Your task to perform on an android device: What's on my calendar today? Image 0: 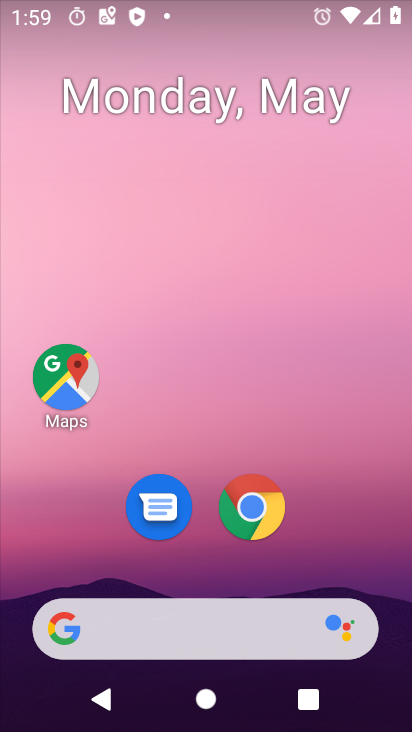
Step 0: drag from (240, 708) to (242, 55)
Your task to perform on an android device: What's on my calendar today? Image 1: 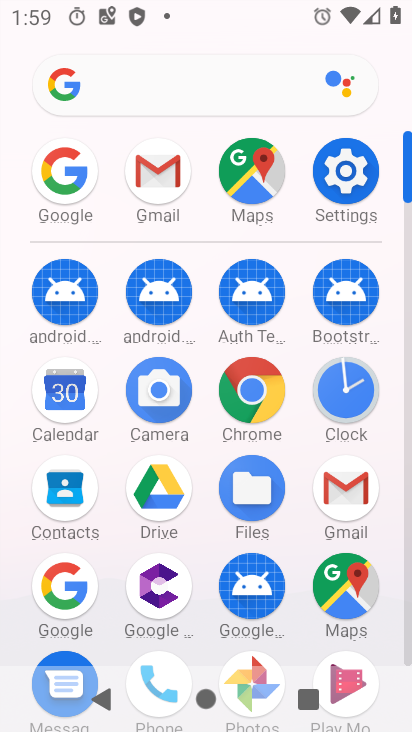
Step 1: click (65, 390)
Your task to perform on an android device: What's on my calendar today? Image 2: 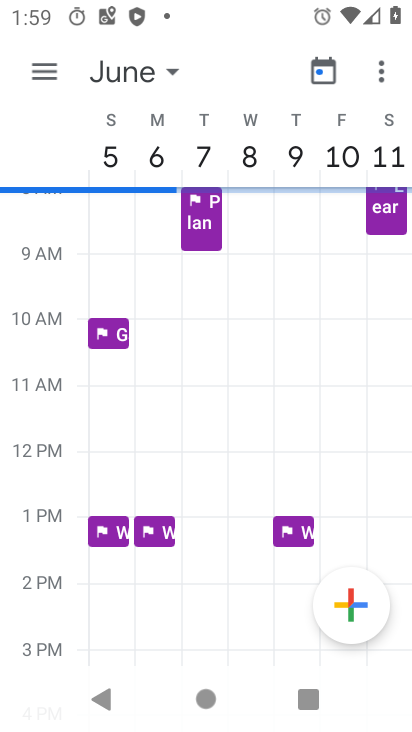
Step 2: click (144, 74)
Your task to perform on an android device: What's on my calendar today? Image 3: 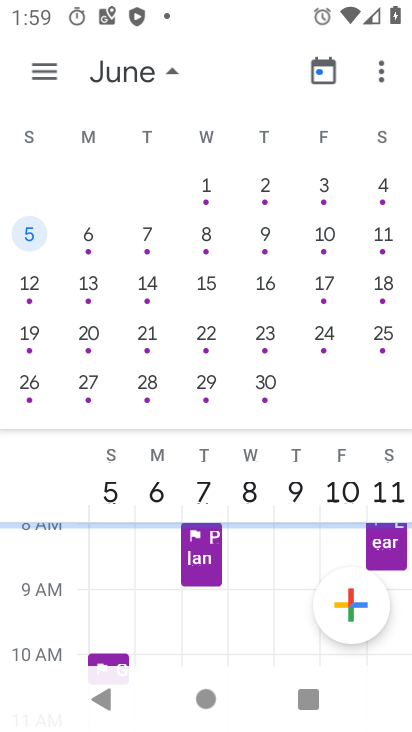
Step 3: click (43, 308)
Your task to perform on an android device: What's on my calendar today? Image 4: 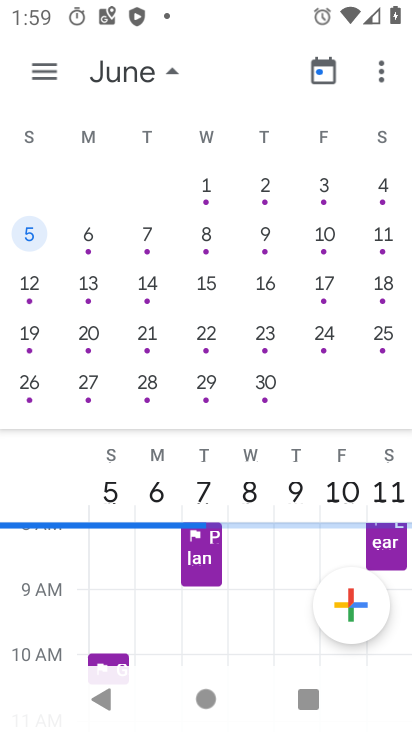
Step 4: click (290, 278)
Your task to perform on an android device: What's on my calendar today? Image 5: 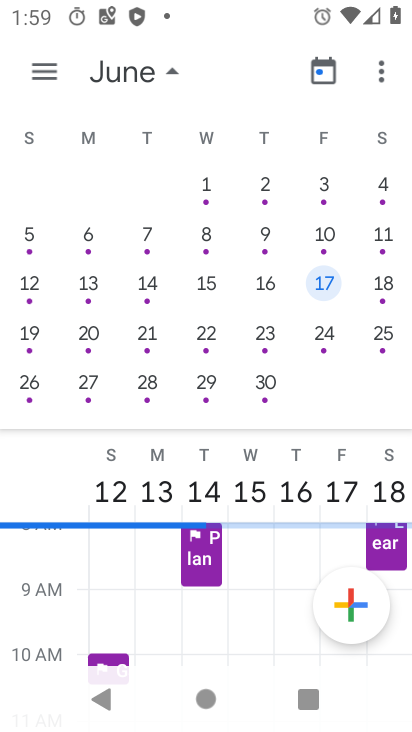
Step 5: click (16, 259)
Your task to perform on an android device: What's on my calendar today? Image 6: 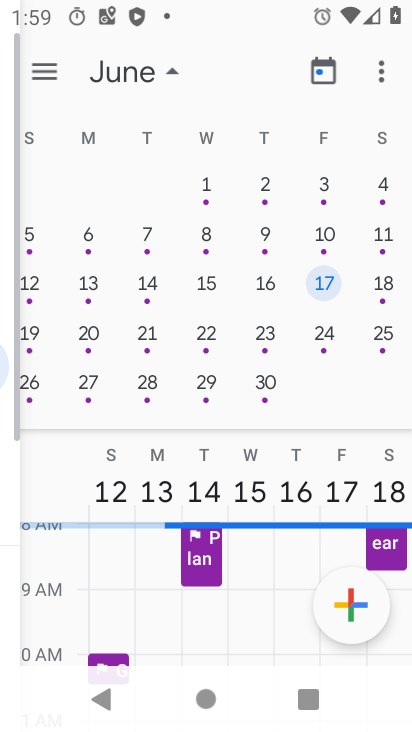
Step 6: drag from (128, 259) to (278, 252)
Your task to perform on an android device: What's on my calendar today? Image 7: 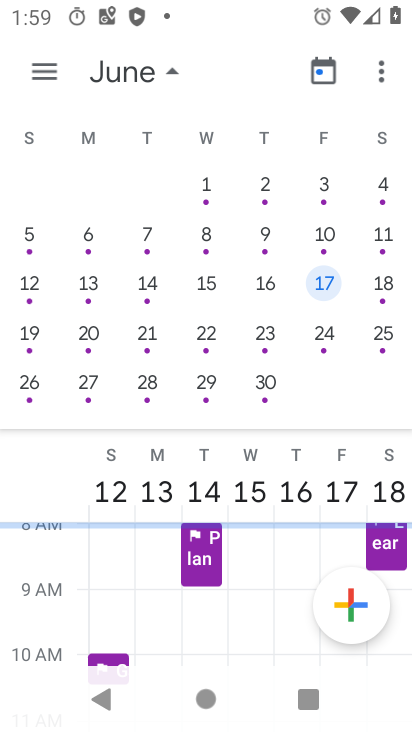
Step 7: drag from (31, 324) to (136, 319)
Your task to perform on an android device: What's on my calendar today? Image 8: 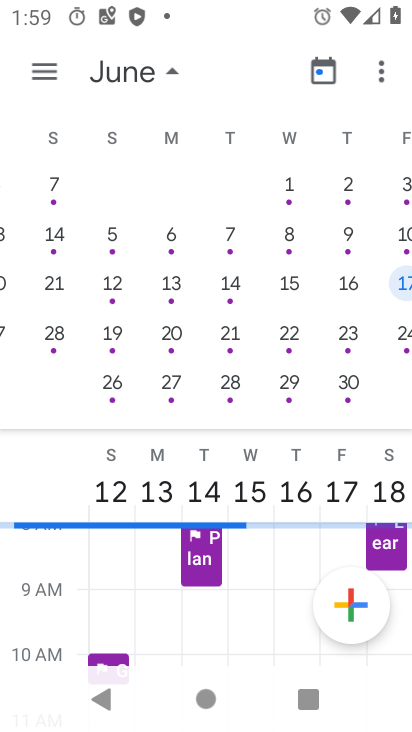
Step 8: click (368, 310)
Your task to perform on an android device: What's on my calendar today? Image 9: 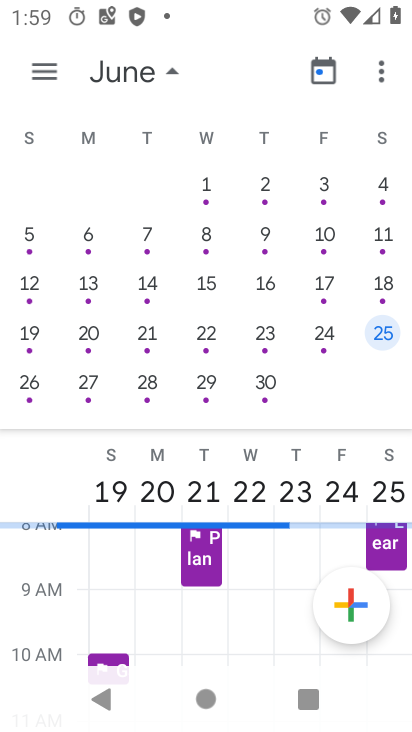
Step 9: drag from (14, 316) to (141, 316)
Your task to perform on an android device: What's on my calendar today? Image 10: 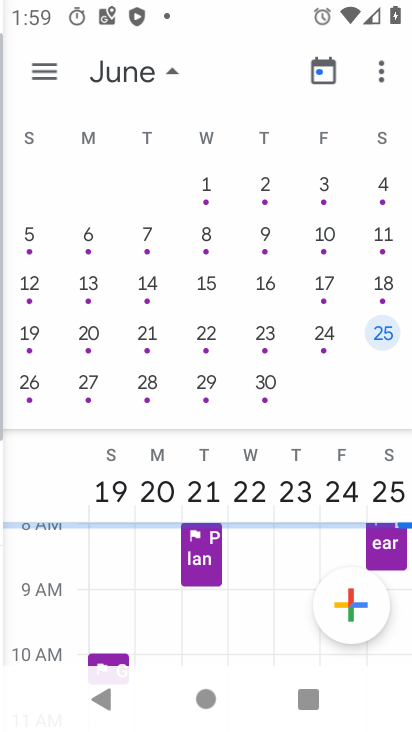
Step 10: drag from (304, 316) to (355, 318)
Your task to perform on an android device: What's on my calendar today? Image 11: 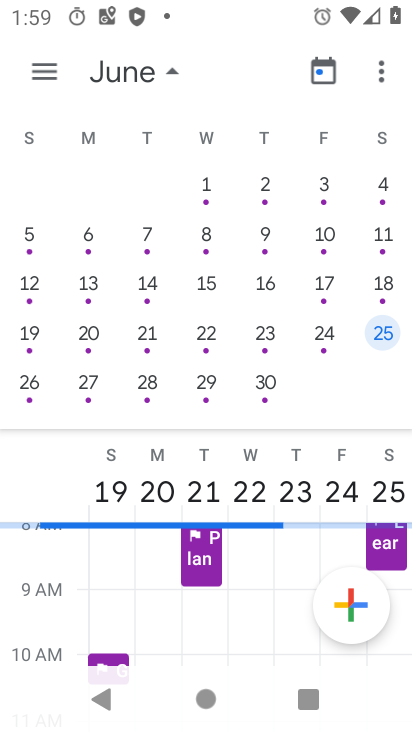
Step 11: drag from (92, 314) to (396, 298)
Your task to perform on an android device: What's on my calendar today? Image 12: 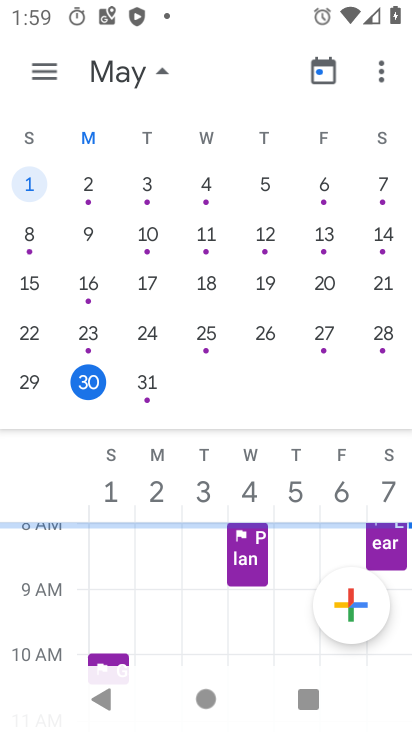
Step 12: click (152, 376)
Your task to perform on an android device: What's on my calendar today? Image 13: 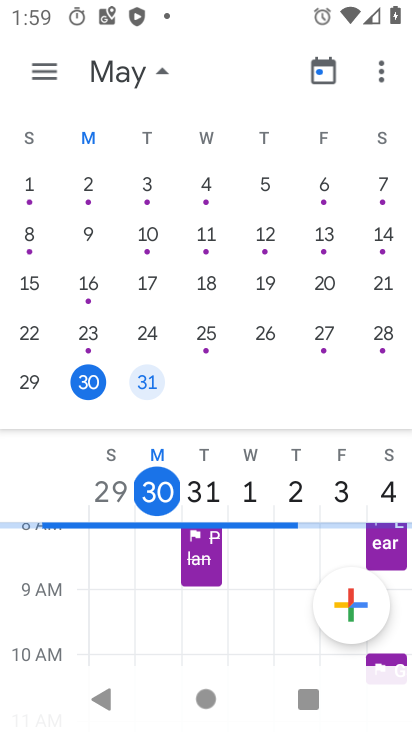
Step 13: click (164, 64)
Your task to perform on an android device: What's on my calendar today? Image 14: 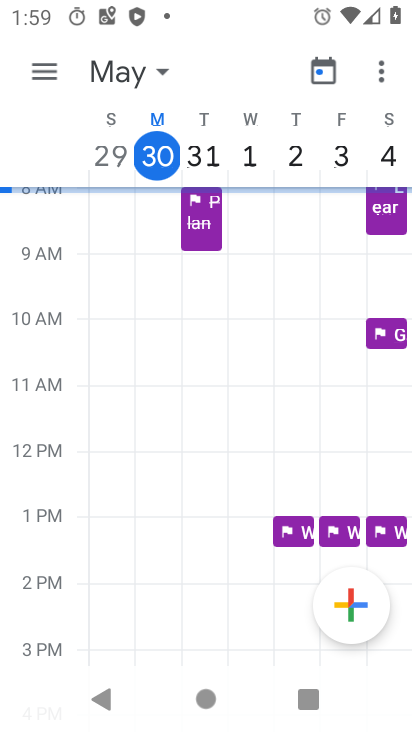
Step 14: task complete